Your task to perform on an android device: toggle data saver in the chrome app Image 0: 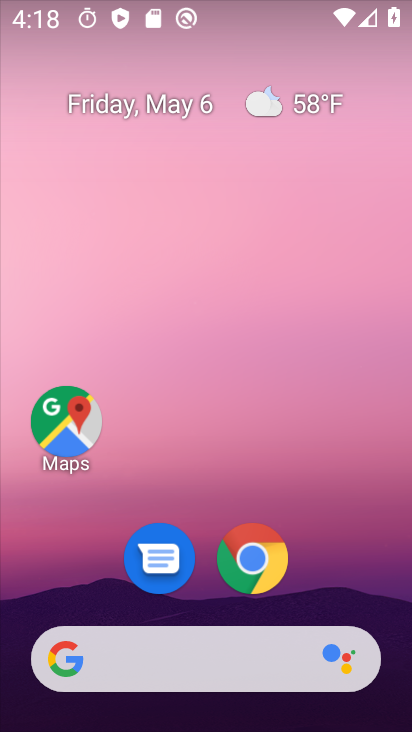
Step 0: drag from (291, 584) to (304, 58)
Your task to perform on an android device: toggle data saver in the chrome app Image 1: 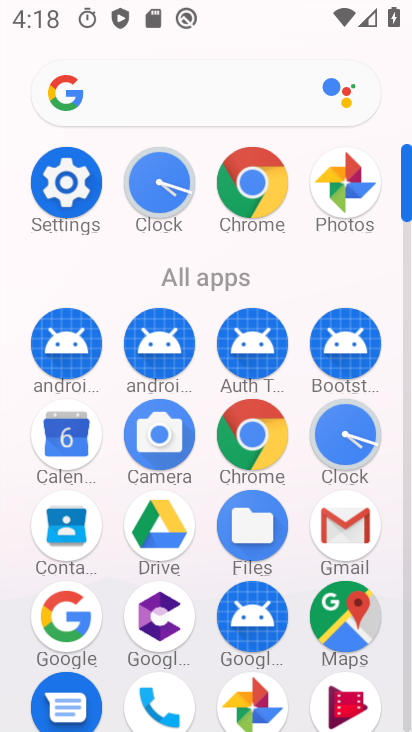
Step 1: click (261, 437)
Your task to perform on an android device: toggle data saver in the chrome app Image 2: 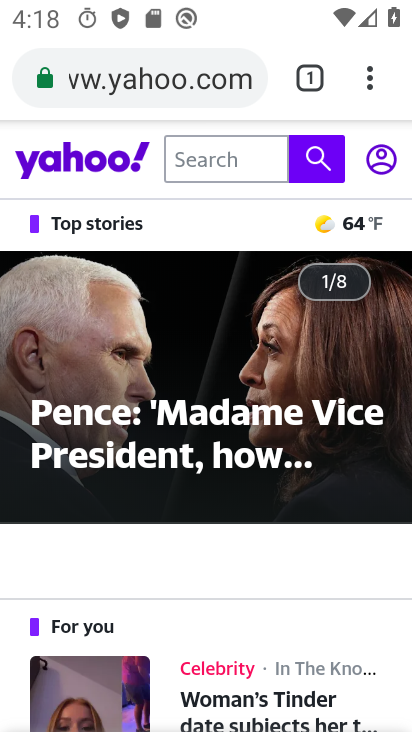
Step 2: drag from (368, 66) to (167, 637)
Your task to perform on an android device: toggle data saver in the chrome app Image 3: 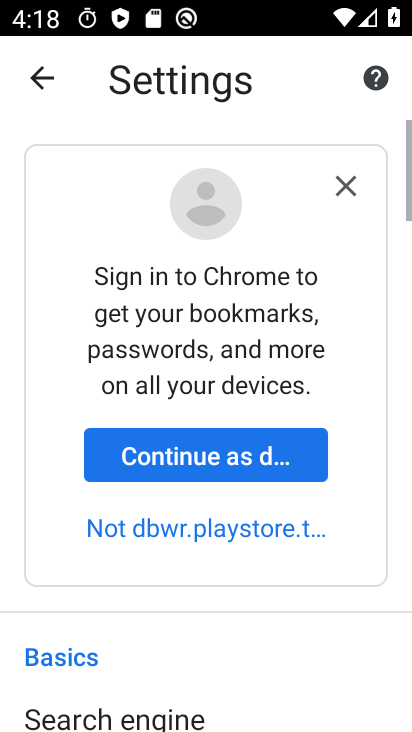
Step 3: drag from (238, 664) to (158, 52)
Your task to perform on an android device: toggle data saver in the chrome app Image 4: 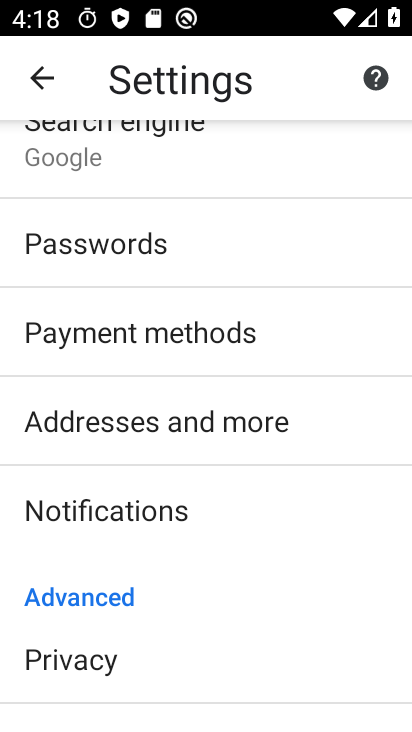
Step 4: drag from (202, 643) to (236, 131)
Your task to perform on an android device: toggle data saver in the chrome app Image 5: 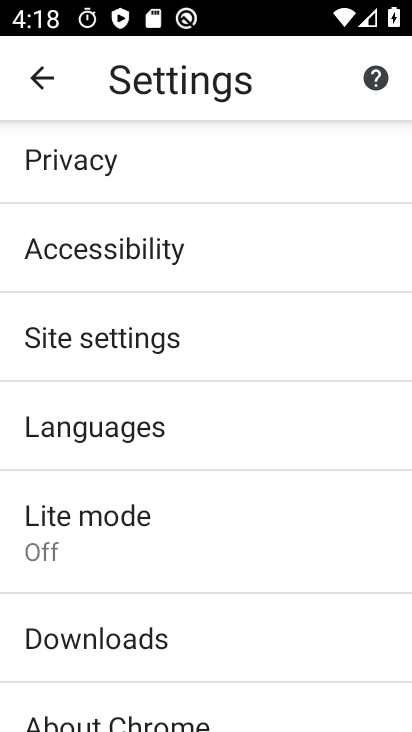
Step 5: click (168, 523)
Your task to perform on an android device: toggle data saver in the chrome app Image 6: 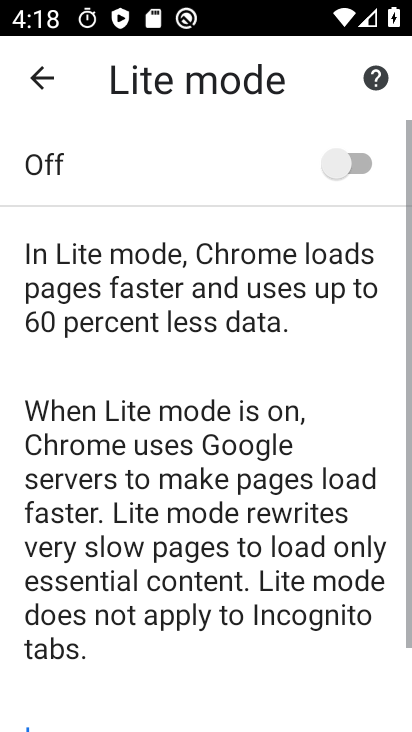
Step 6: click (359, 161)
Your task to perform on an android device: toggle data saver in the chrome app Image 7: 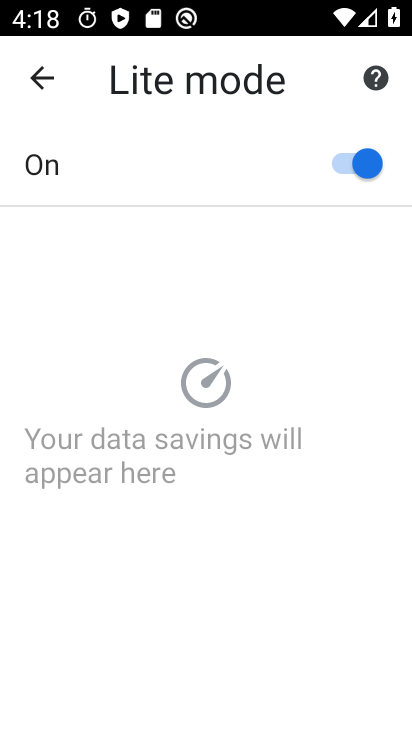
Step 7: task complete